Your task to perform on an android device: Go to eBay Image 0: 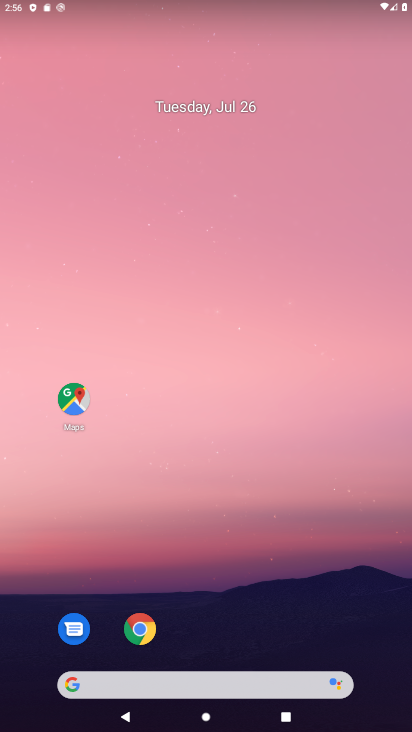
Step 0: click (139, 630)
Your task to perform on an android device: Go to eBay Image 1: 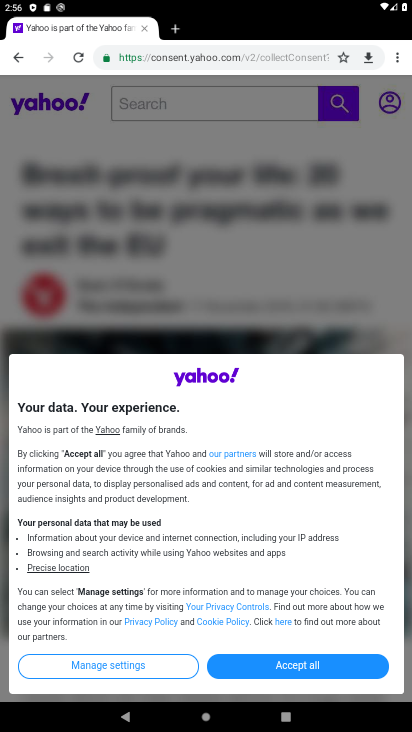
Step 1: click (398, 56)
Your task to perform on an android device: Go to eBay Image 2: 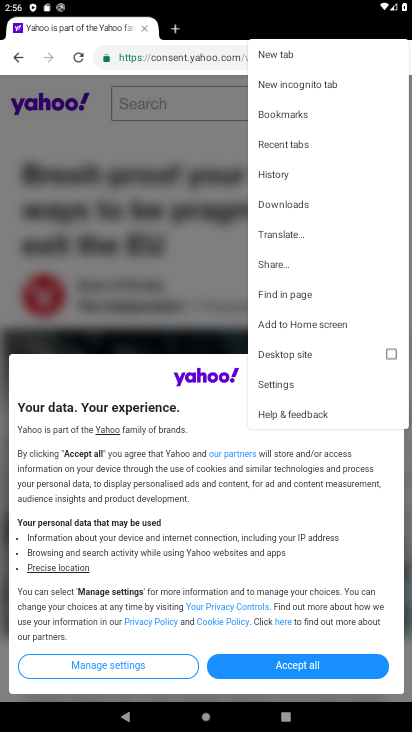
Step 2: click (273, 52)
Your task to perform on an android device: Go to eBay Image 3: 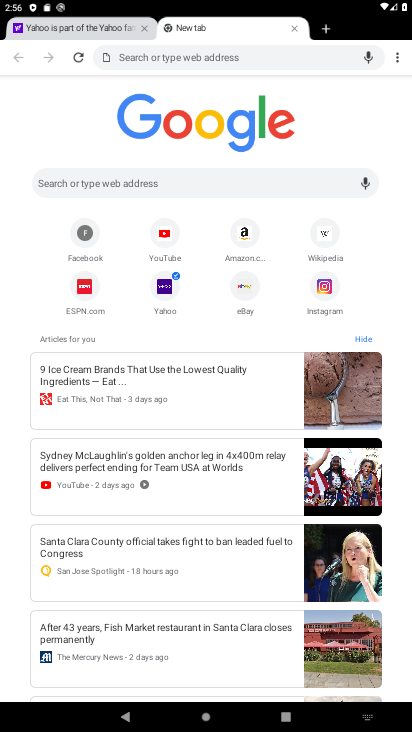
Step 3: click (246, 285)
Your task to perform on an android device: Go to eBay Image 4: 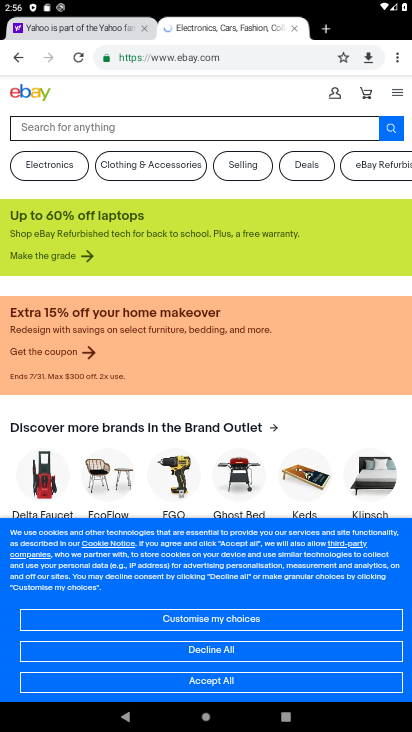
Step 4: task complete